Your task to perform on an android device: Open the phone app and click the voicemail tab. Image 0: 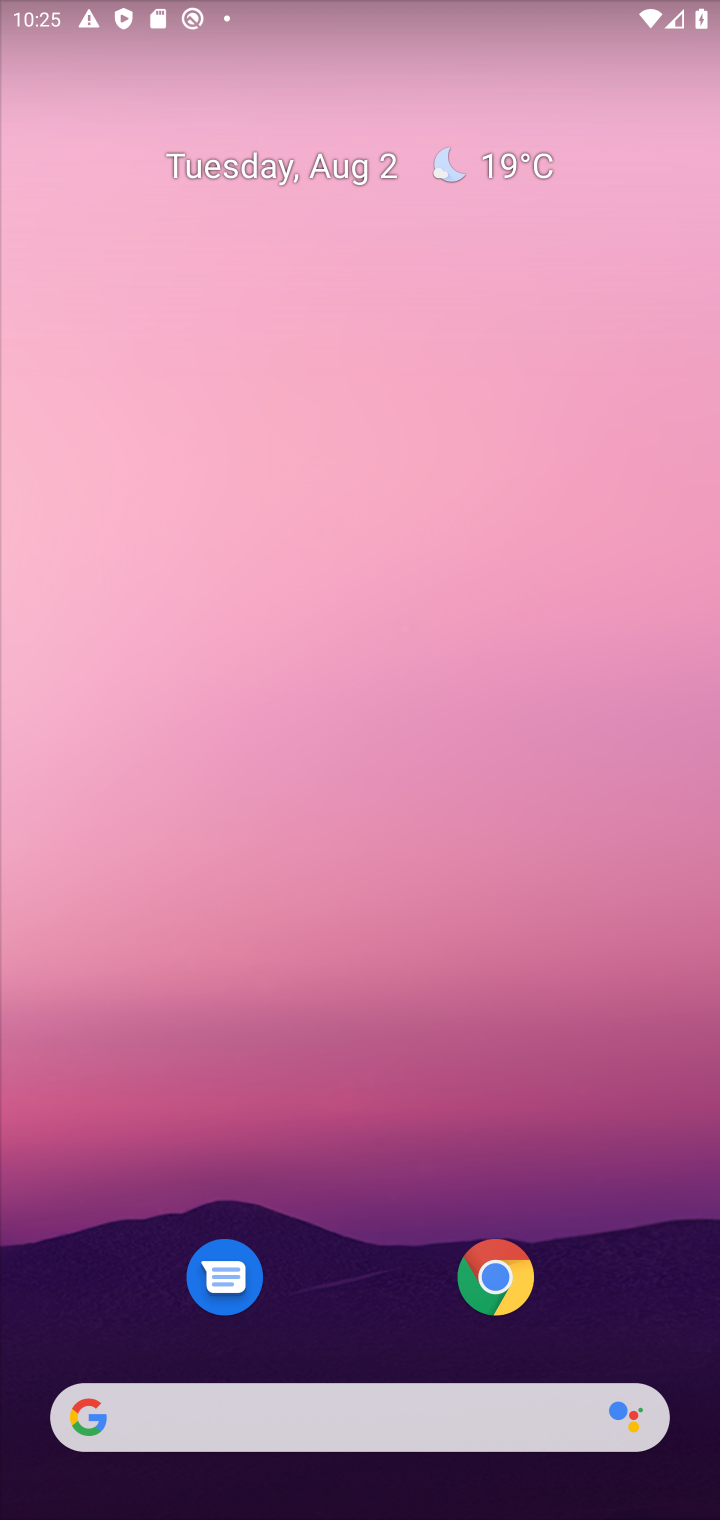
Step 0: press home button
Your task to perform on an android device: Open the phone app and click the voicemail tab. Image 1: 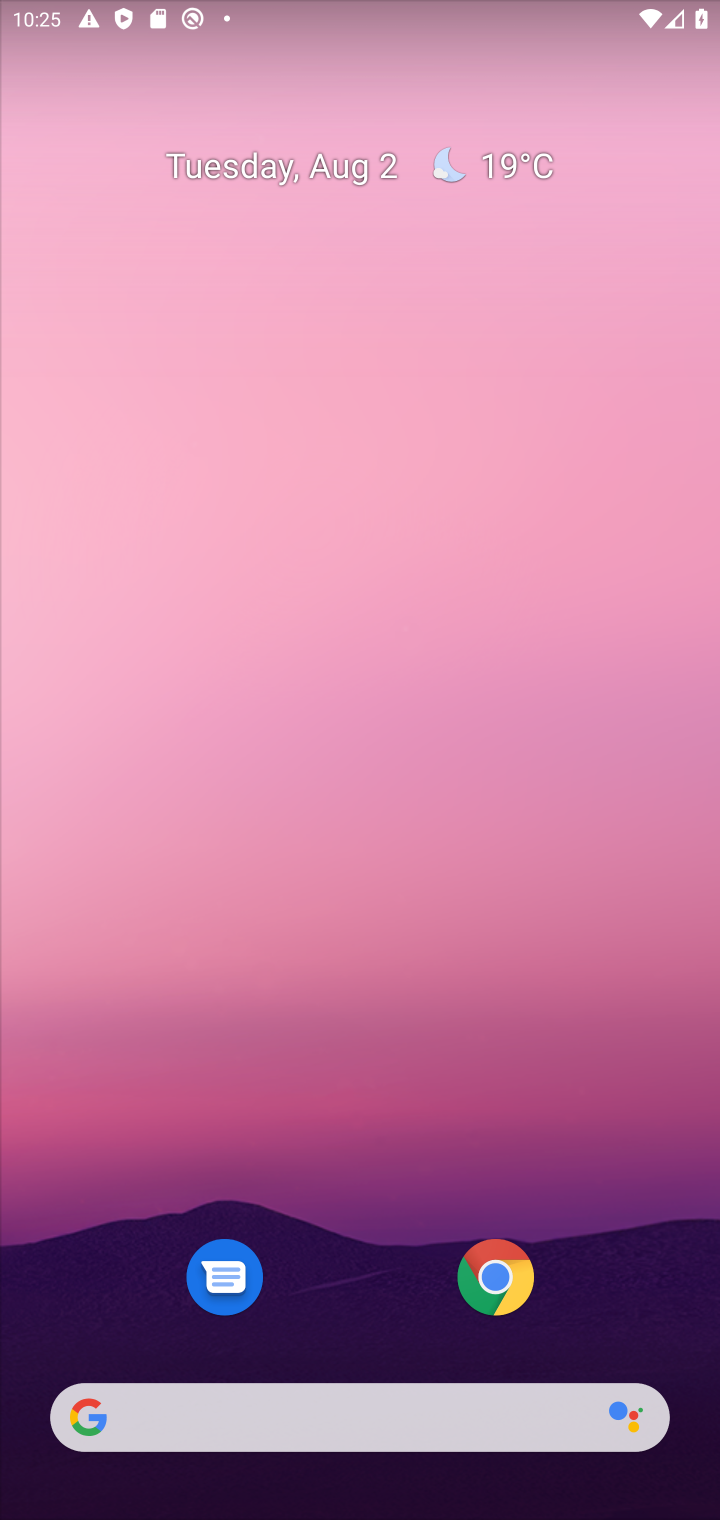
Step 1: drag from (373, 1259) to (599, 152)
Your task to perform on an android device: Open the phone app and click the voicemail tab. Image 2: 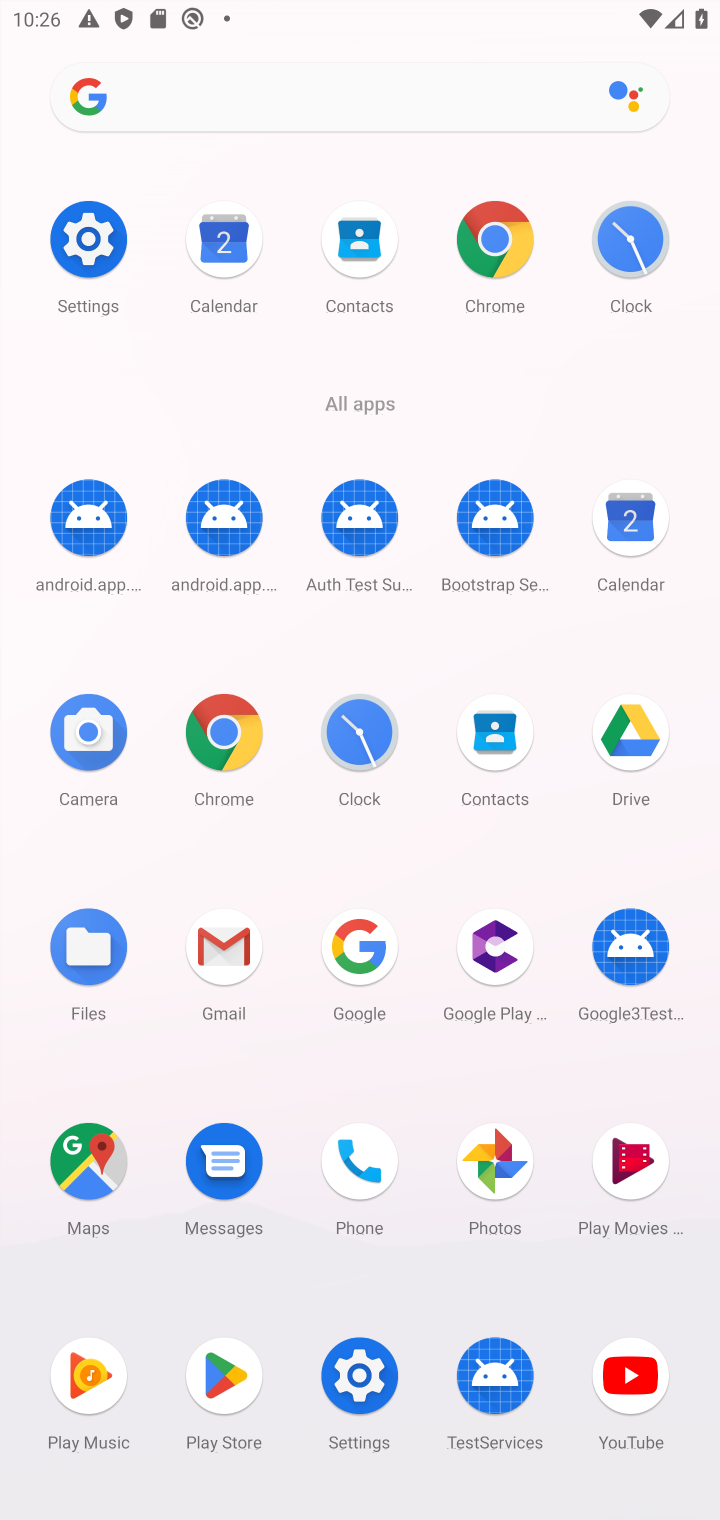
Step 2: click (381, 1159)
Your task to perform on an android device: Open the phone app and click the voicemail tab. Image 3: 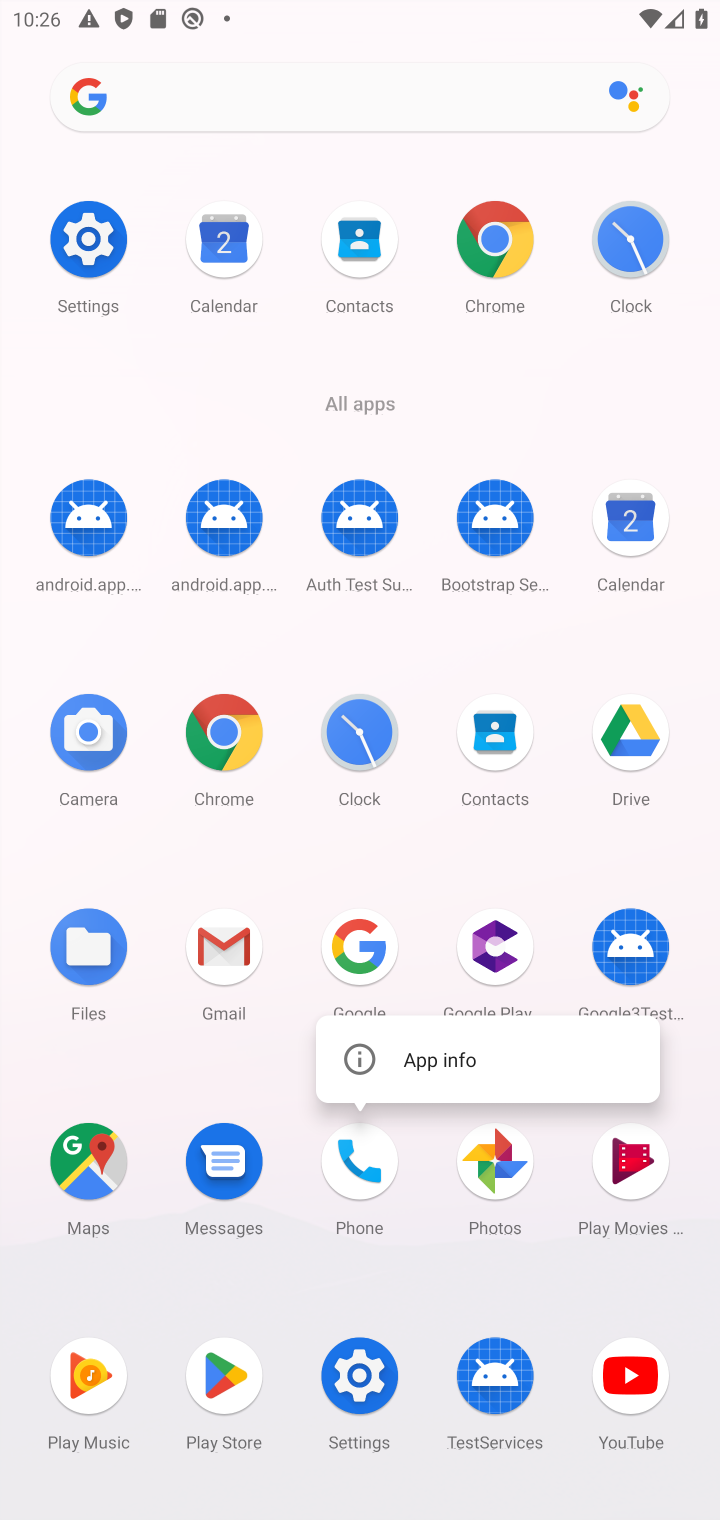
Step 3: click (386, 1179)
Your task to perform on an android device: Open the phone app and click the voicemail tab. Image 4: 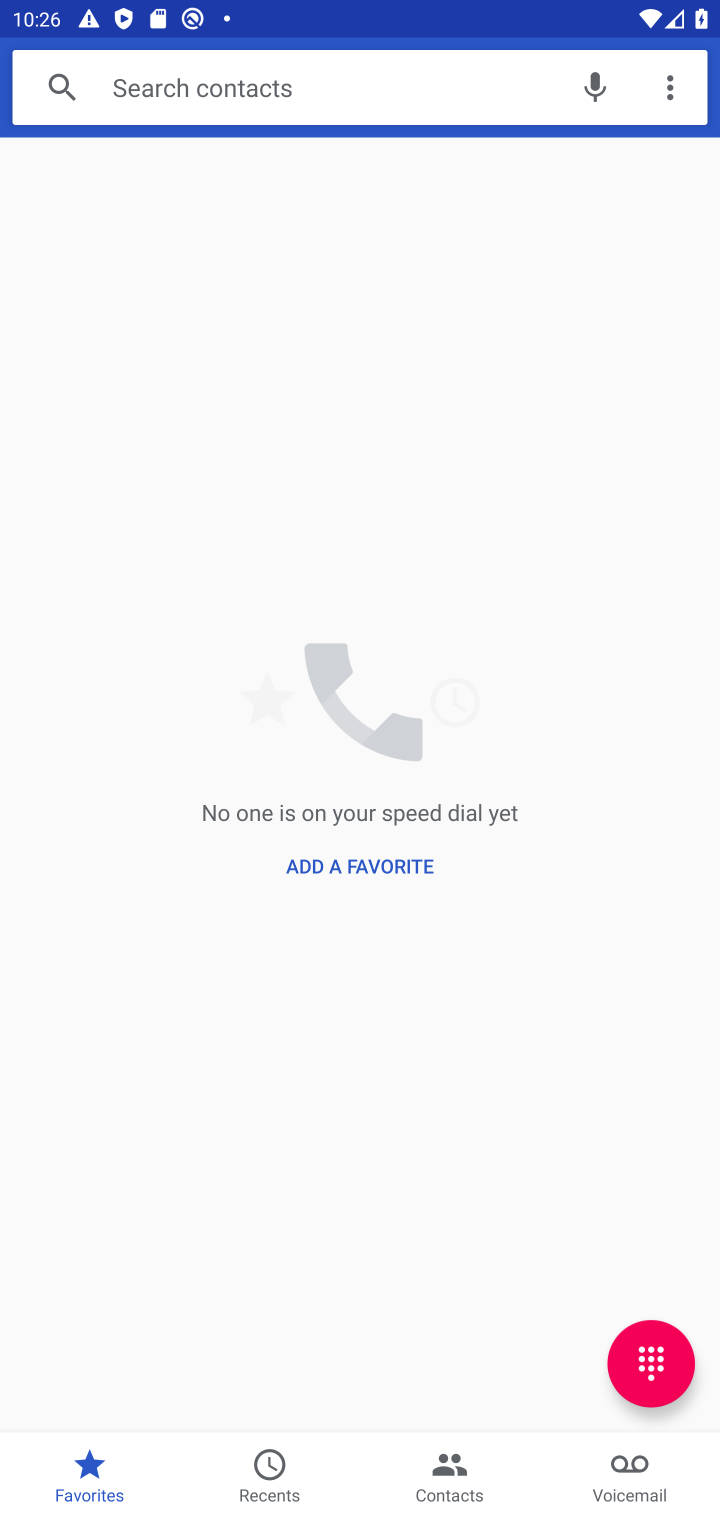
Step 4: click (634, 1482)
Your task to perform on an android device: Open the phone app and click the voicemail tab. Image 5: 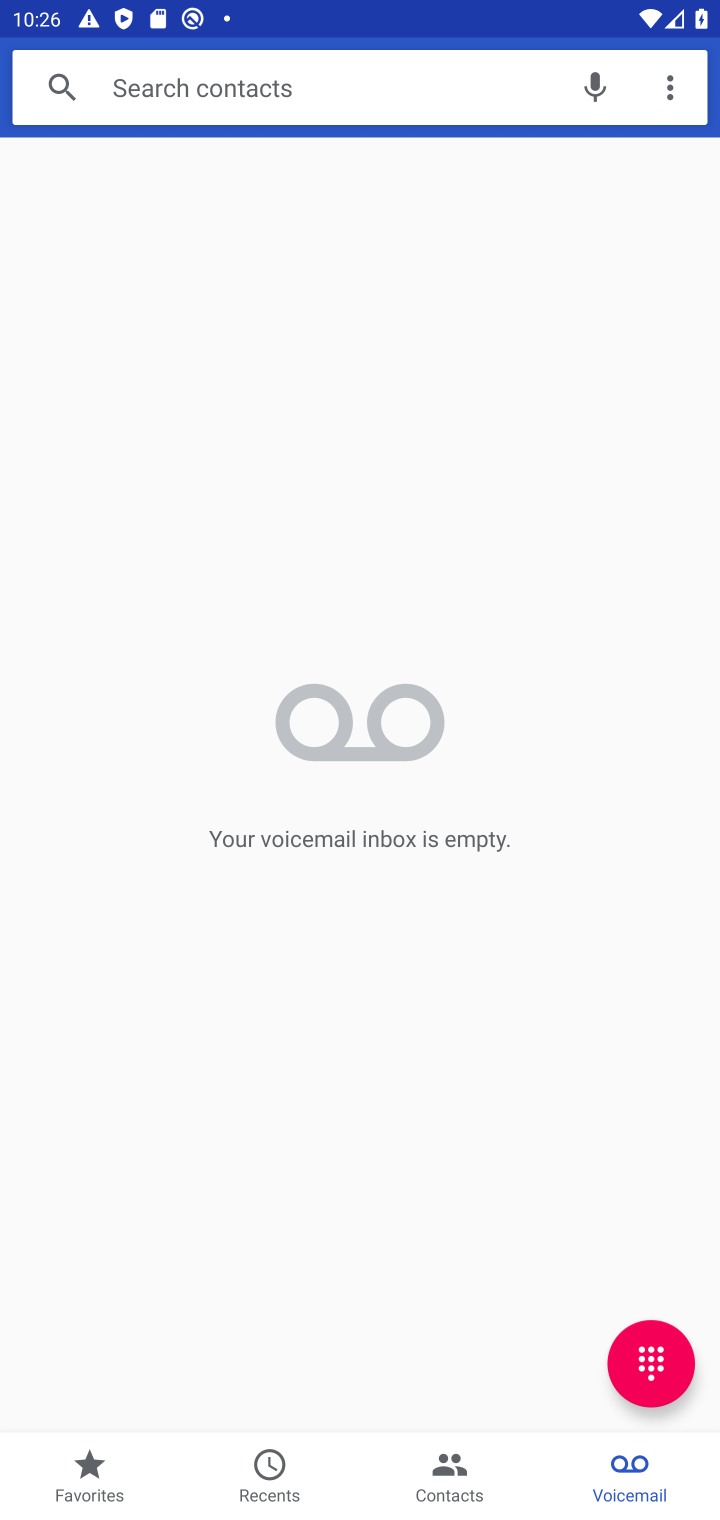
Step 5: task complete